Your task to perform on an android device: turn off sleep mode Image 0: 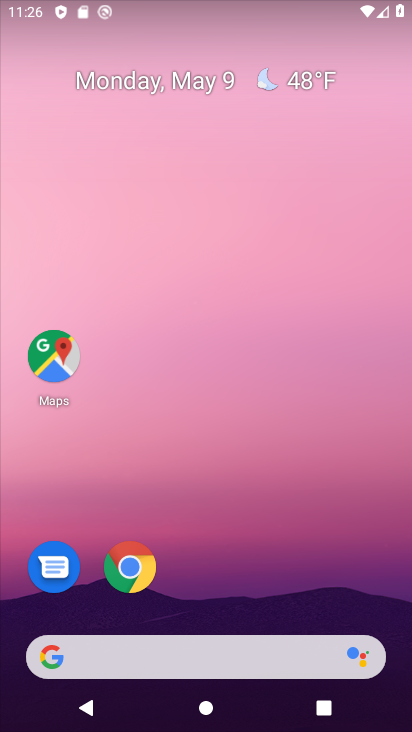
Step 0: drag from (208, 614) to (352, 49)
Your task to perform on an android device: turn off sleep mode Image 1: 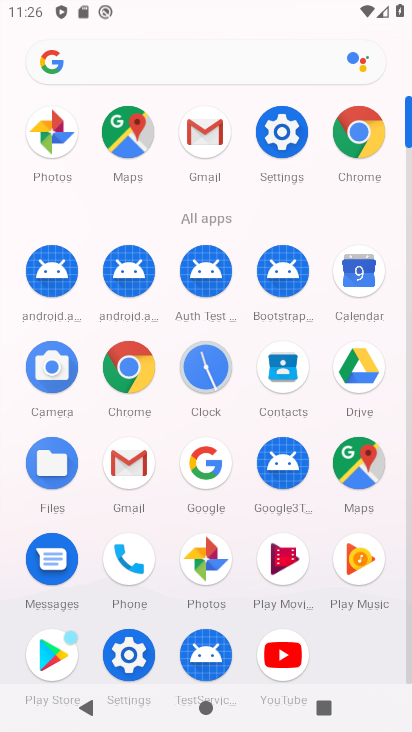
Step 1: click (129, 666)
Your task to perform on an android device: turn off sleep mode Image 2: 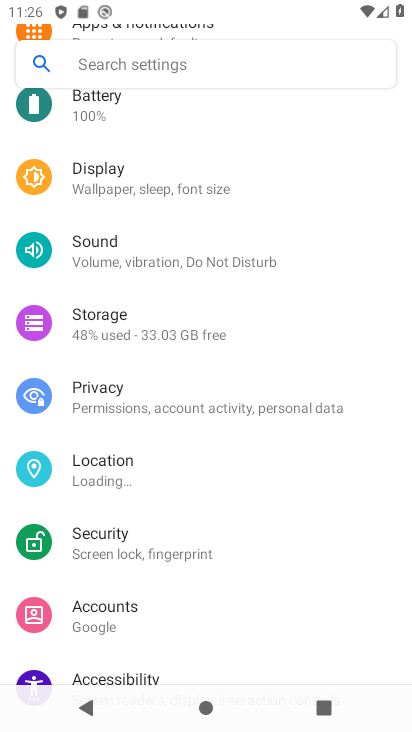
Step 2: click (119, 191)
Your task to perform on an android device: turn off sleep mode Image 3: 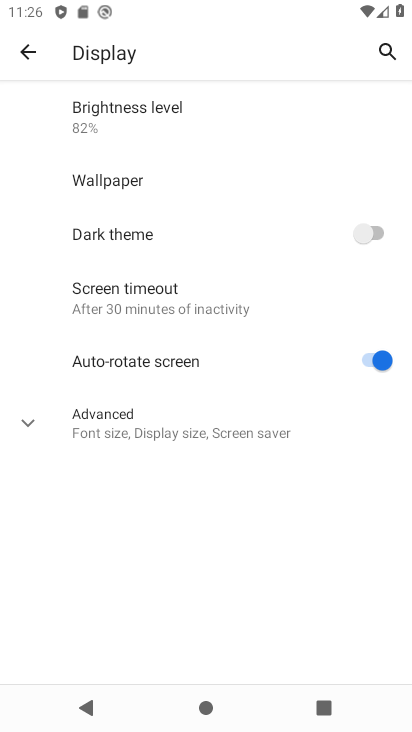
Step 3: click (202, 424)
Your task to perform on an android device: turn off sleep mode Image 4: 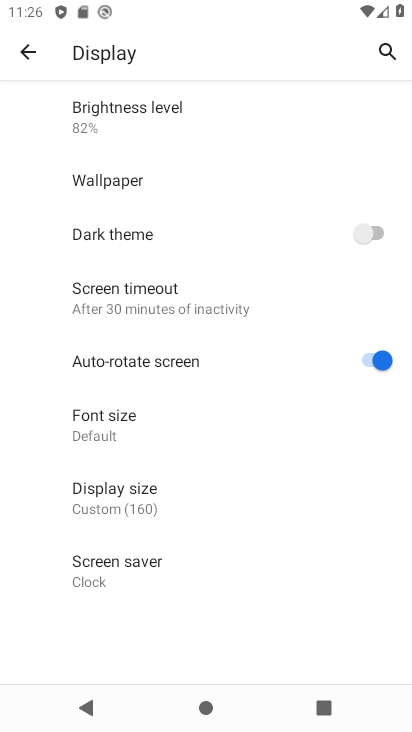
Step 4: task complete